Your task to perform on an android device: stop showing notifications on the lock screen Image 0: 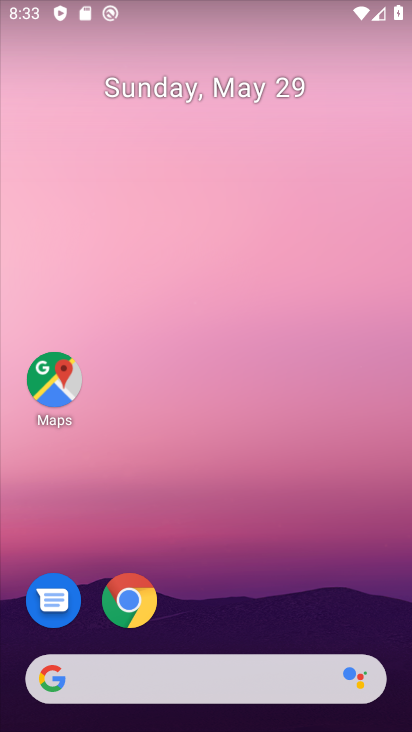
Step 0: drag from (211, 715) to (211, 99)
Your task to perform on an android device: stop showing notifications on the lock screen Image 1: 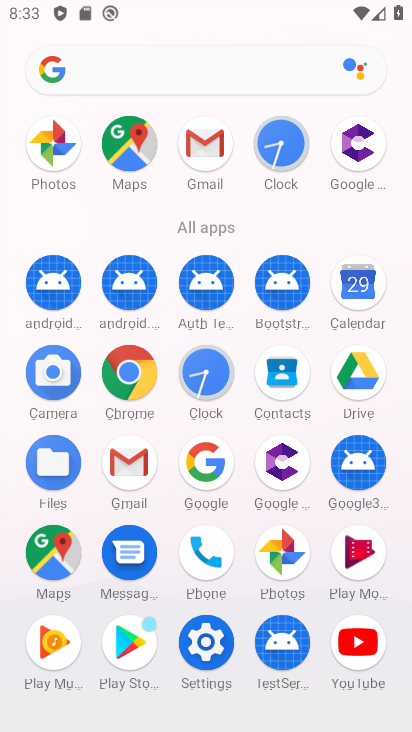
Step 1: click (201, 637)
Your task to perform on an android device: stop showing notifications on the lock screen Image 2: 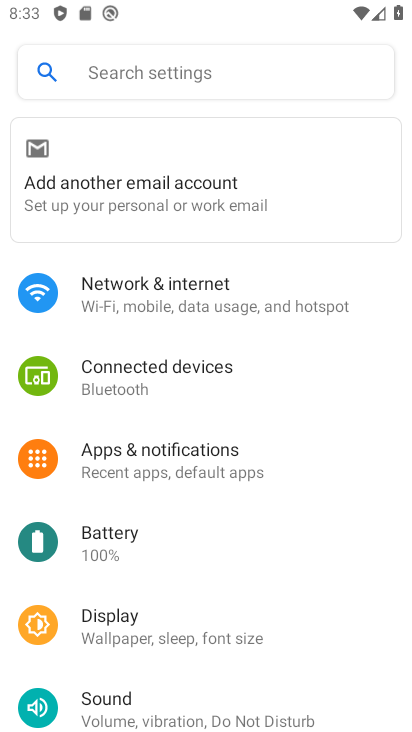
Step 2: click (125, 461)
Your task to perform on an android device: stop showing notifications on the lock screen Image 3: 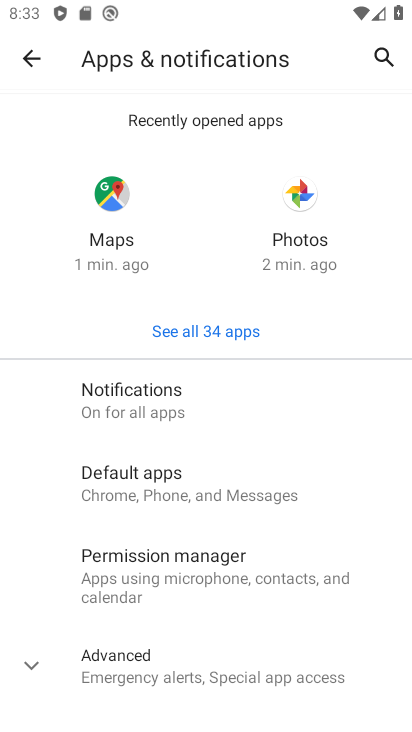
Step 3: click (129, 404)
Your task to perform on an android device: stop showing notifications on the lock screen Image 4: 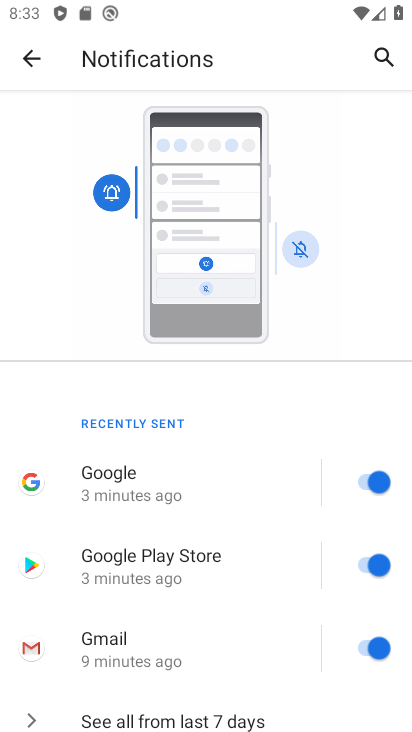
Step 4: drag from (204, 689) to (204, 142)
Your task to perform on an android device: stop showing notifications on the lock screen Image 5: 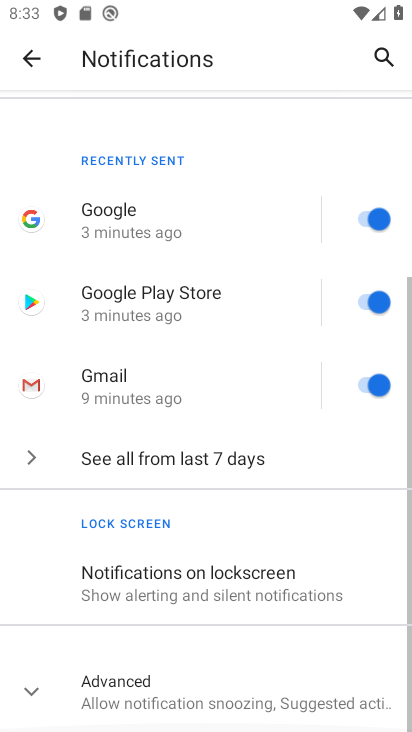
Step 5: click (237, 585)
Your task to perform on an android device: stop showing notifications on the lock screen Image 6: 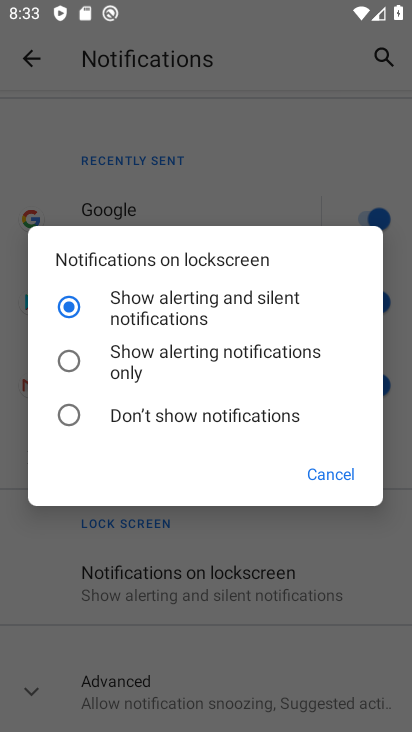
Step 6: click (67, 414)
Your task to perform on an android device: stop showing notifications on the lock screen Image 7: 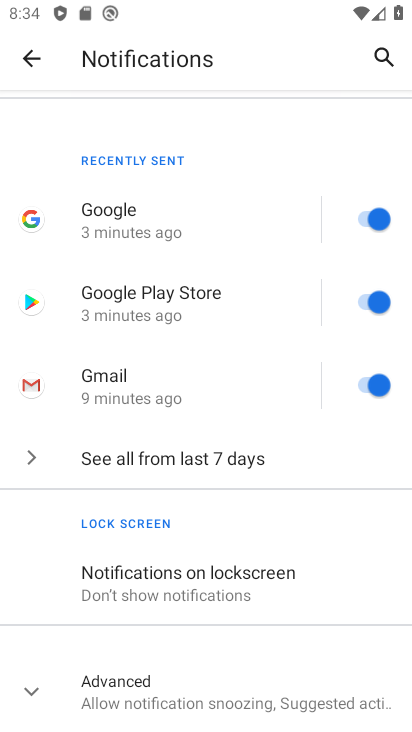
Step 7: task complete